Your task to perform on an android device: change timer sound Image 0: 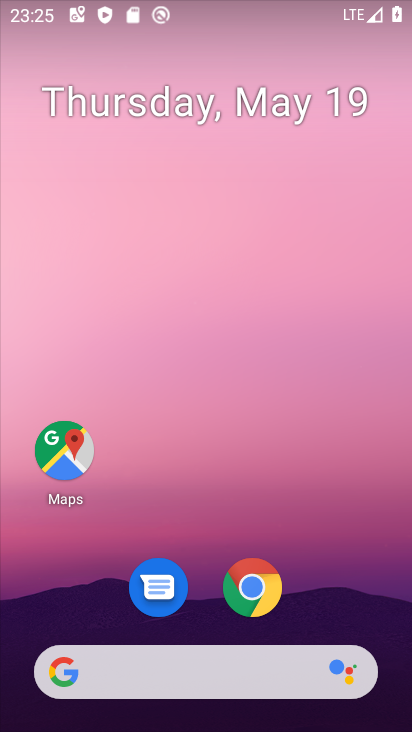
Step 0: drag from (246, 684) to (218, 59)
Your task to perform on an android device: change timer sound Image 1: 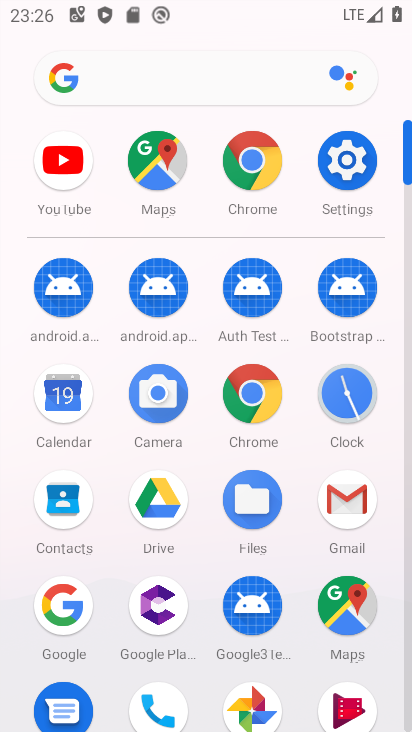
Step 1: click (331, 414)
Your task to perform on an android device: change timer sound Image 2: 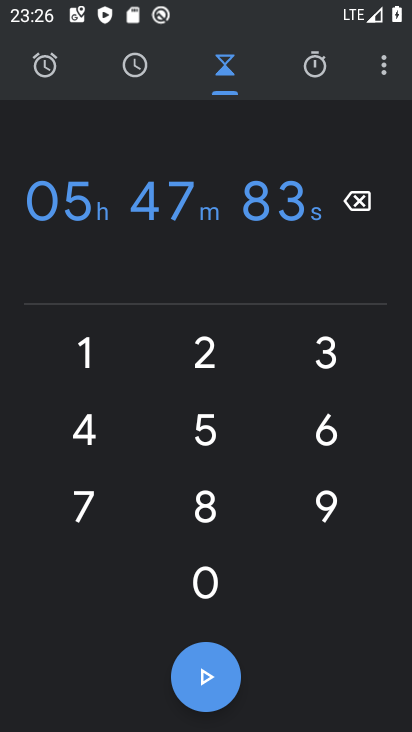
Step 2: click (383, 92)
Your task to perform on an android device: change timer sound Image 3: 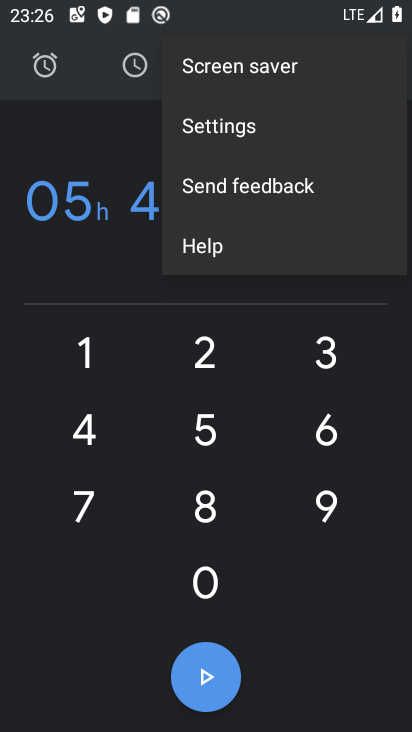
Step 3: click (289, 120)
Your task to perform on an android device: change timer sound Image 4: 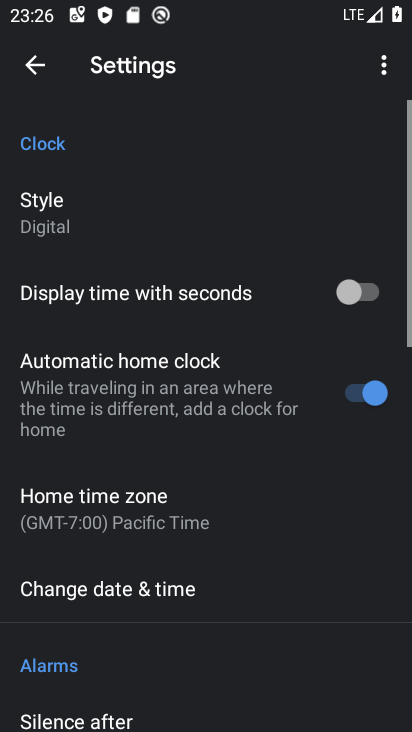
Step 4: drag from (152, 532) to (194, 232)
Your task to perform on an android device: change timer sound Image 5: 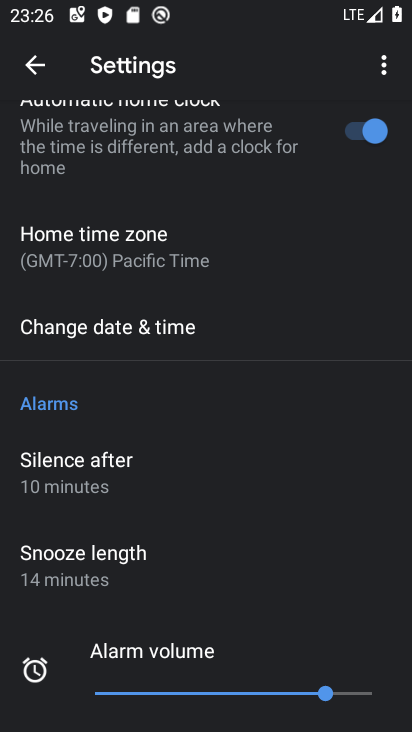
Step 5: drag from (193, 584) to (214, 344)
Your task to perform on an android device: change timer sound Image 6: 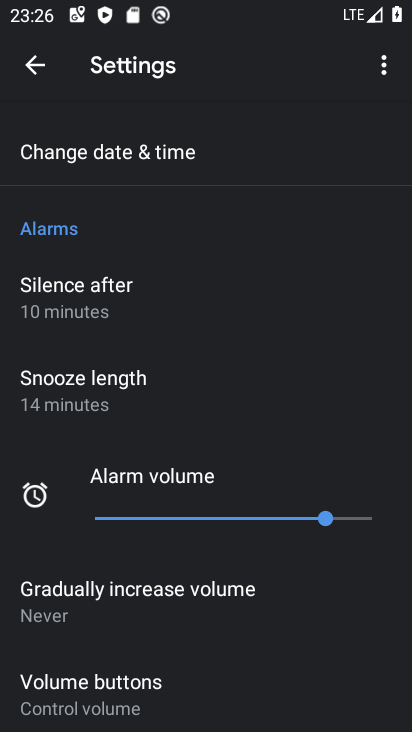
Step 6: drag from (133, 612) to (202, 404)
Your task to perform on an android device: change timer sound Image 7: 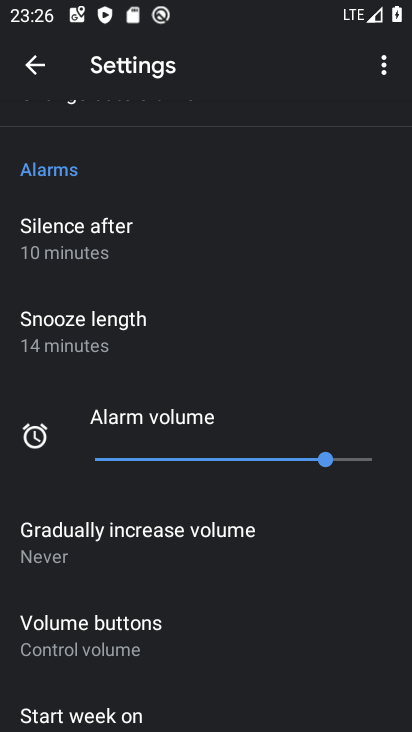
Step 7: drag from (132, 623) to (182, 429)
Your task to perform on an android device: change timer sound Image 8: 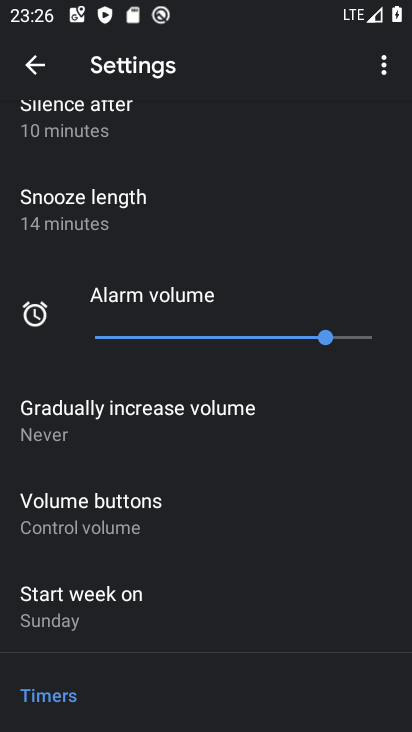
Step 8: drag from (113, 600) to (176, 484)
Your task to perform on an android device: change timer sound Image 9: 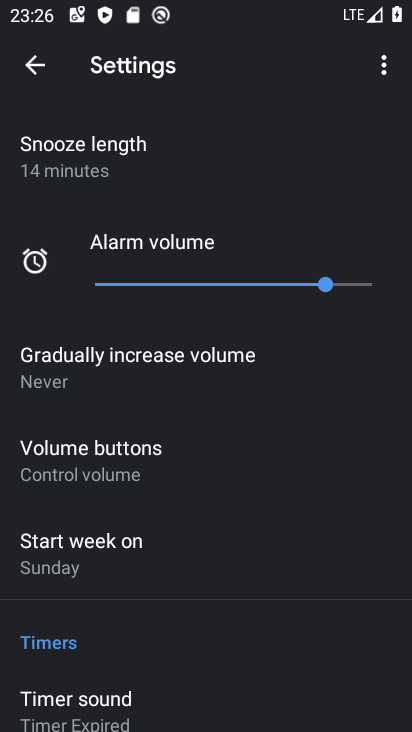
Step 9: click (87, 698)
Your task to perform on an android device: change timer sound Image 10: 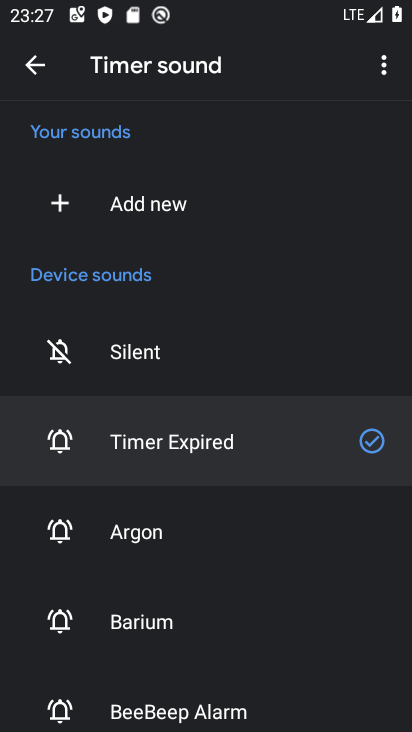
Step 10: click (156, 635)
Your task to perform on an android device: change timer sound Image 11: 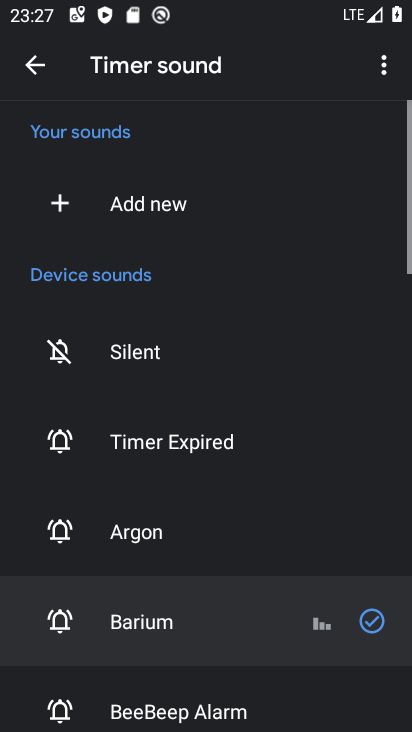
Step 11: task complete